Your task to perform on an android device: Search for hotels in Mexico city Image 0: 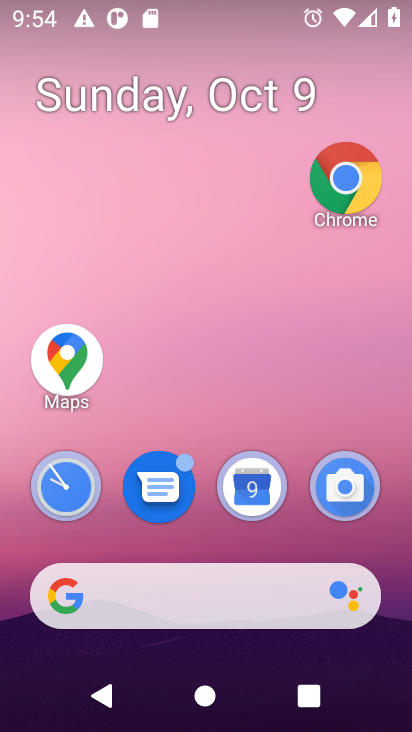
Step 0: drag from (261, 546) to (314, 10)
Your task to perform on an android device: Search for hotels in Mexico city Image 1: 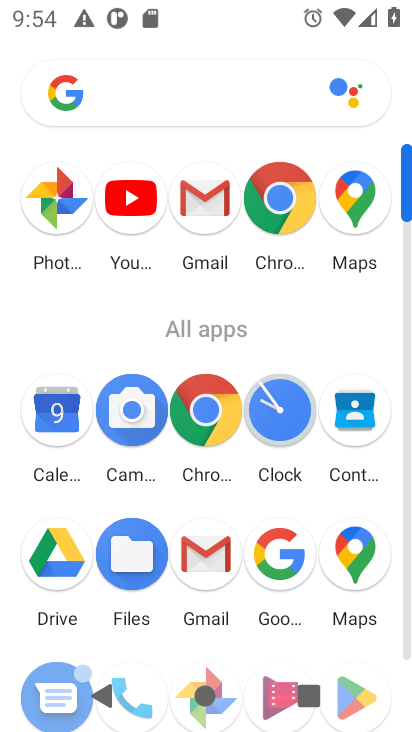
Step 1: click (285, 553)
Your task to perform on an android device: Search for hotels in Mexico city Image 2: 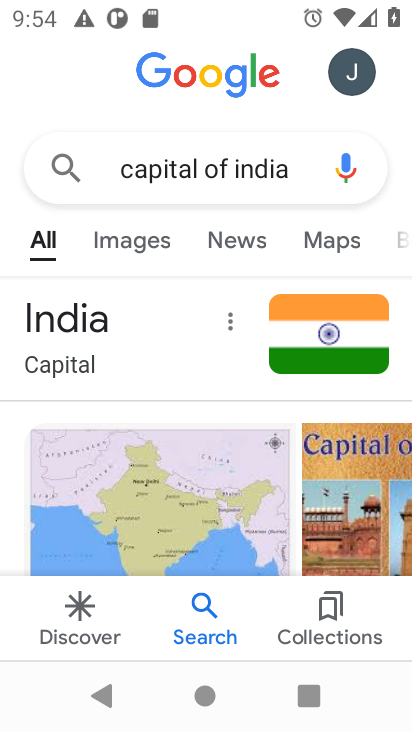
Step 2: click (297, 184)
Your task to perform on an android device: Search for hotels in Mexico city Image 3: 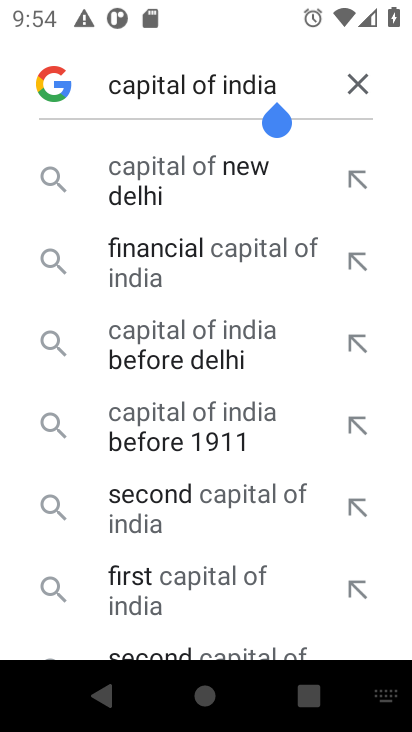
Step 3: click (357, 92)
Your task to perform on an android device: Search for hotels in Mexico city Image 4: 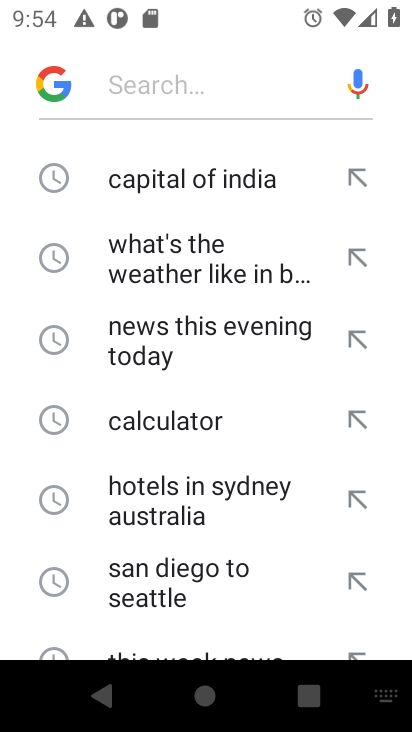
Step 4: type "hotels in Mexico city"
Your task to perform on an android device: Search for hotels in Mexico city Image 5: 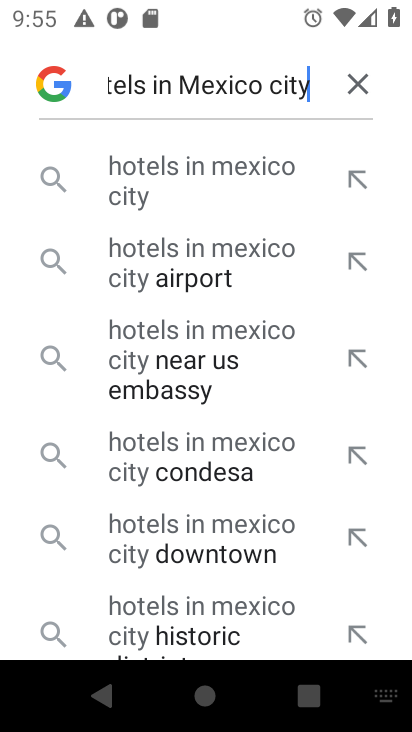
Step 5: click (284, 181)
Your task to perform on an android device: Search for hotels in Mexico city Image 6: 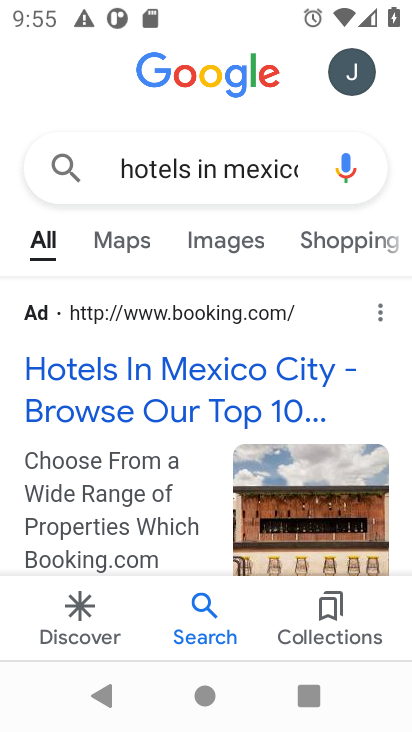
Step 6: task complete